Your task to perform on an android device: turn on sleep mode Image 0: 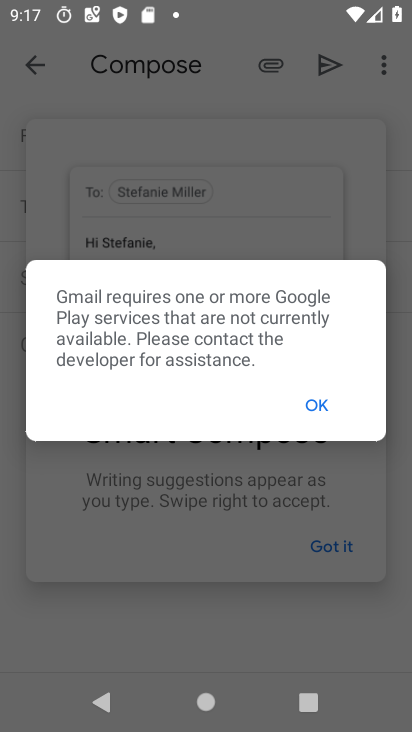
Step 0: press home button
Your task to perform on an android device: turn on sleep mode Image 1: 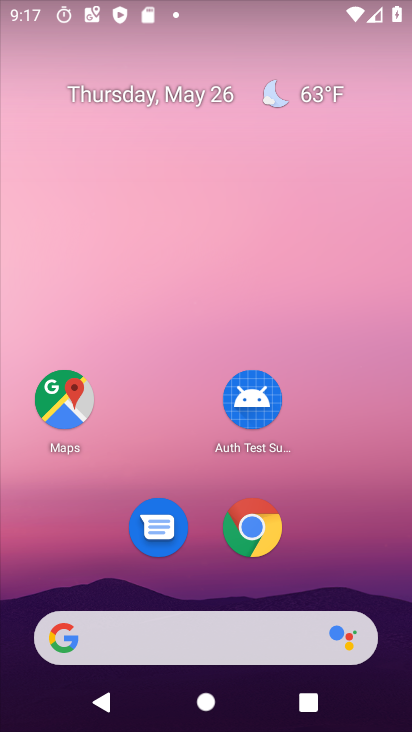
Step 1: drag from (368, 519) to (334, 72)
Your task to perform on an android device: turn on sleep mode Image 2: 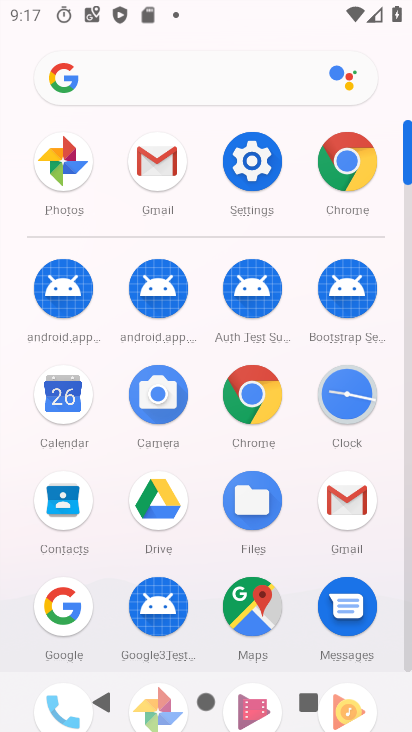
Step 2: click (247, 172)
Your task to perform on an android device: turn on sleep mode Image 3: 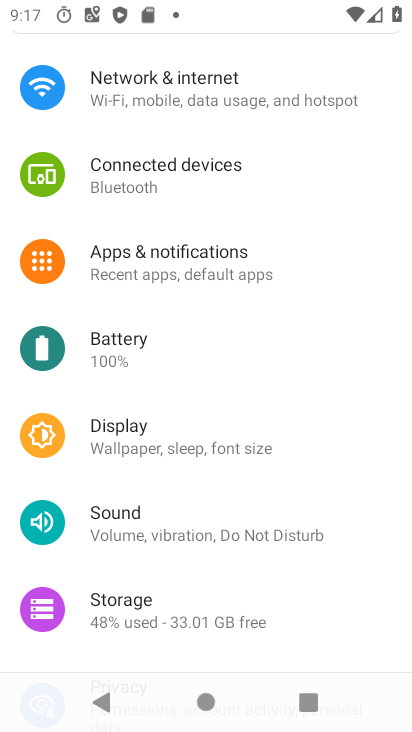
Step 3: click (167, 439)
Your task to perform on an android device: turn on sleep mode Image 4: 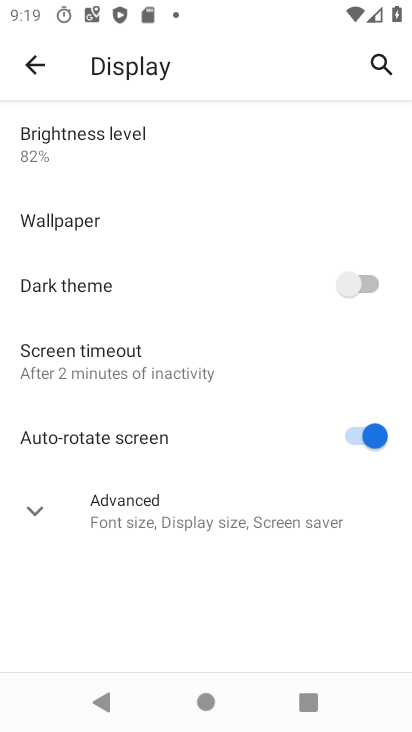
Step 4: click (84, 374)
Your task to perform on an android device: turn on sleep mode Image 5: 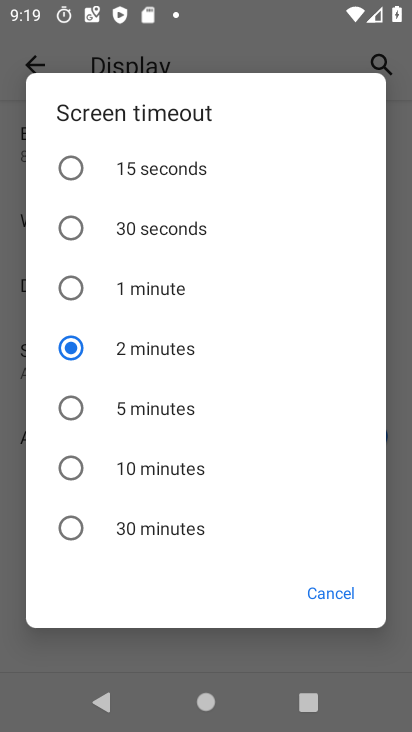
Step 5: task complete